Your task to perform on an android device: delete a single message in the gmail app Image 0: 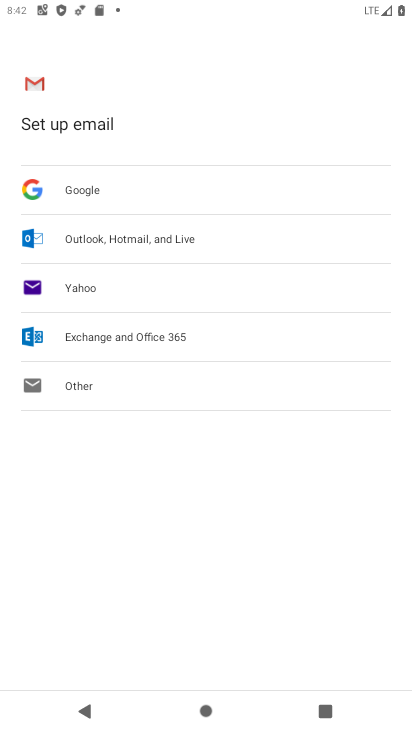
Step 0: press home button
Your task to perform on an android device: delete a single message in the gmail app Image 1: 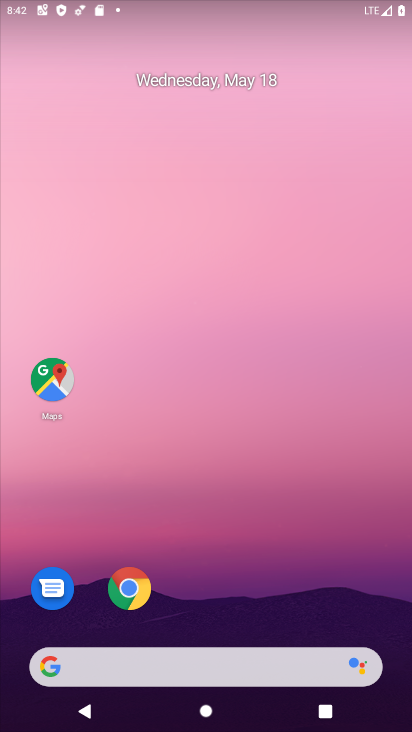
Step 1: drag from (348, 608) to (356, 4)
Your task to perform on an android device: delete a single message in the gmail app Image 2: 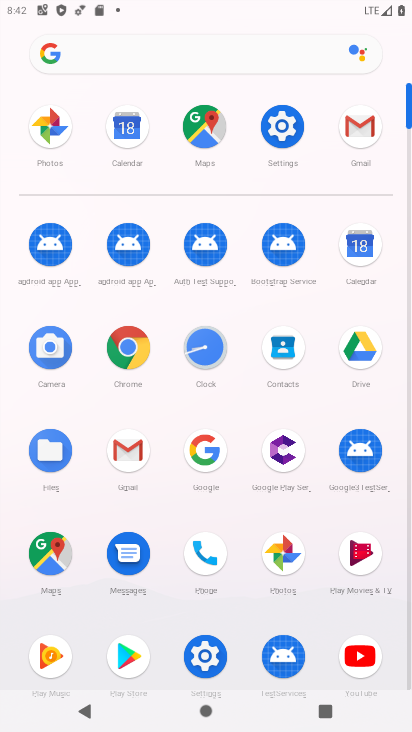
Step 2: click (352, 130)
Your task to perform on an android device: delete a single message in the gmail app Image 3: 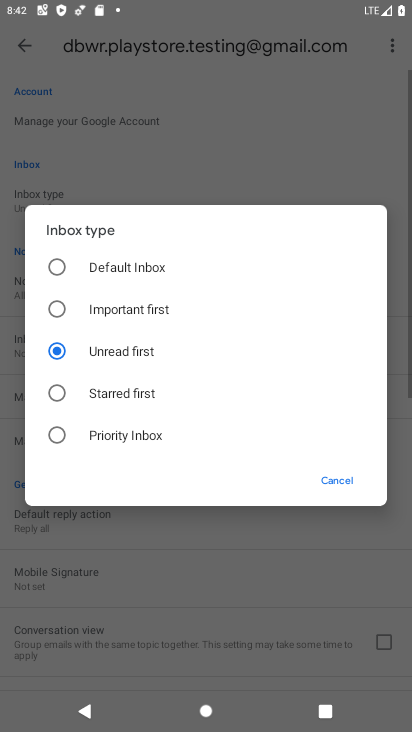
Step 3: click (330, 485)
Your task to perform on an android device: delete a single message in the gmail app Image 4: 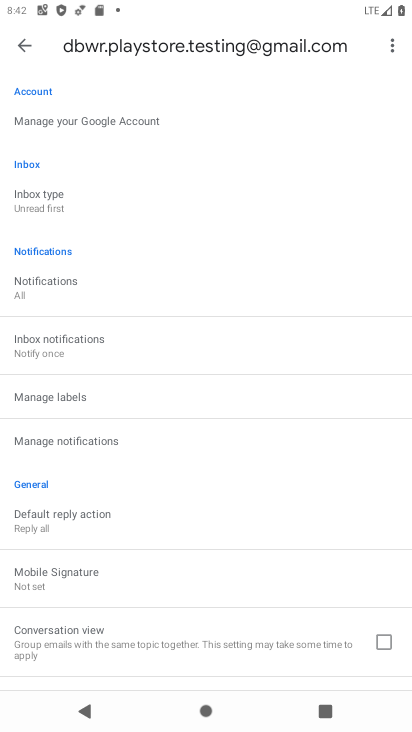
Step 4: click (29, 42)
Your task to perform on an android device: delete a single message in the gmail app Image 5: 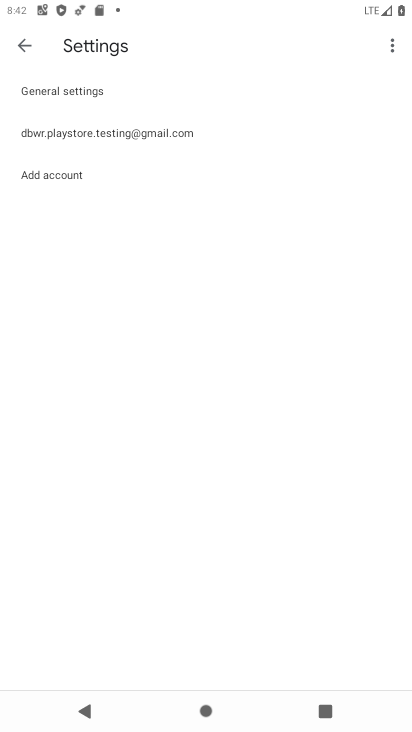
Step 5: click (29, 42)
Your task to perform on an android device: delete a single message in the gmail app Image 6: 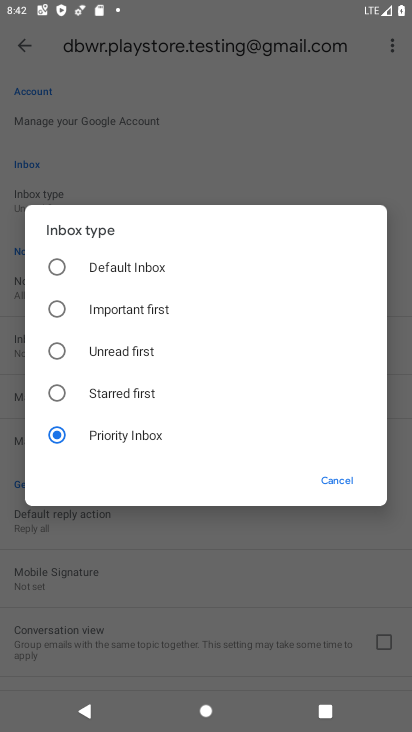
Step 6: click (337, 483)
Your task to perform on an android device: delete a single message in the gmail app Image 7: 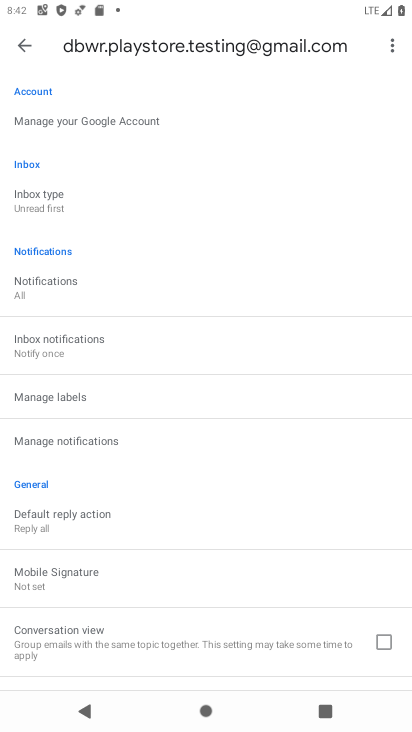
Step 7: click (20, 41)
Your task to perform on an android device: delete a single message in the gmail app Image 8: 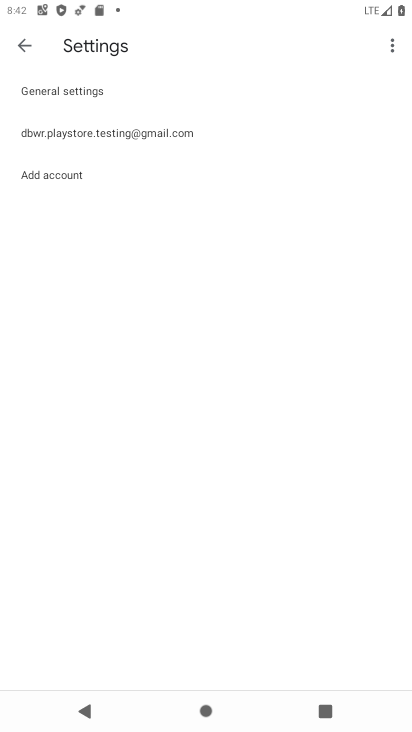
Step 8: click (20, 41)
Your task to perform on an android device: delete a single message in the gmail app Image 9: 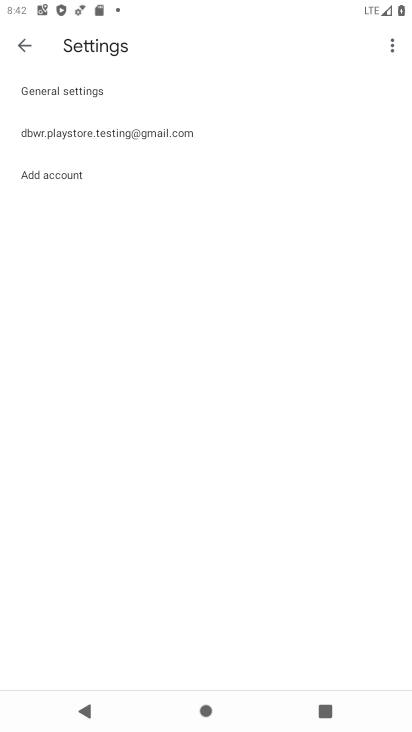
Step 9: click (20, 41)
Your task to perform on an android device: delete a single message in the gmail app Image 10: 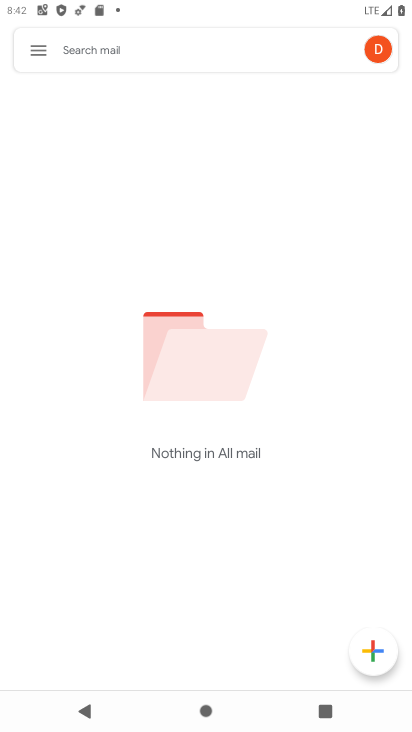
Step 10: task complete